Your task to perform on an android device: turn off picture-in-picture Image 0: 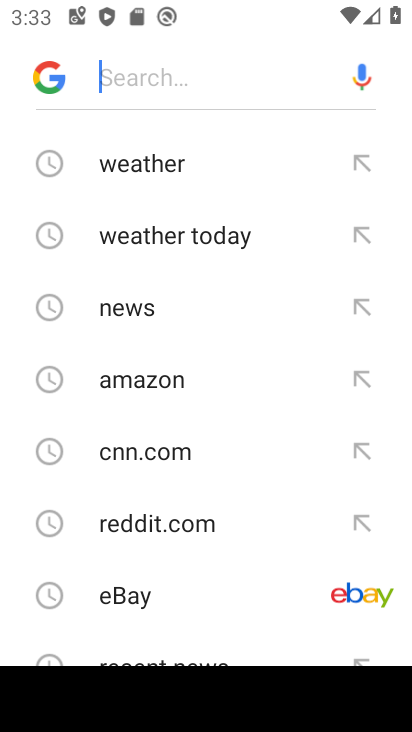
Step 0: press home button
Your task to perform on an android device: turn off picture-in-picture Image 1: 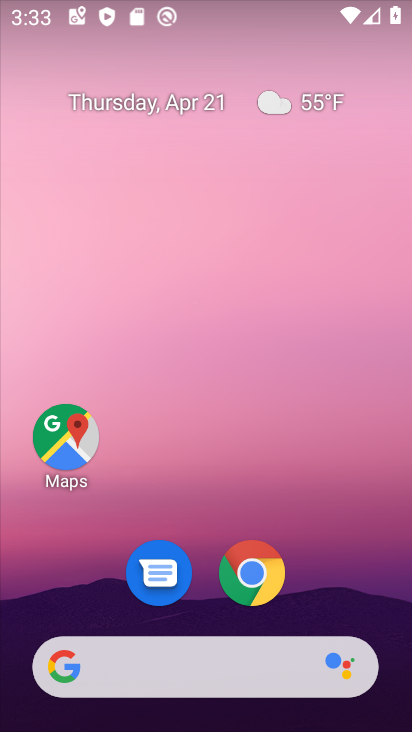
Step 1: drag from (346, 609) to (269, 182)
Your task to perform on an android device: turn off picture-in-picture Image 2: 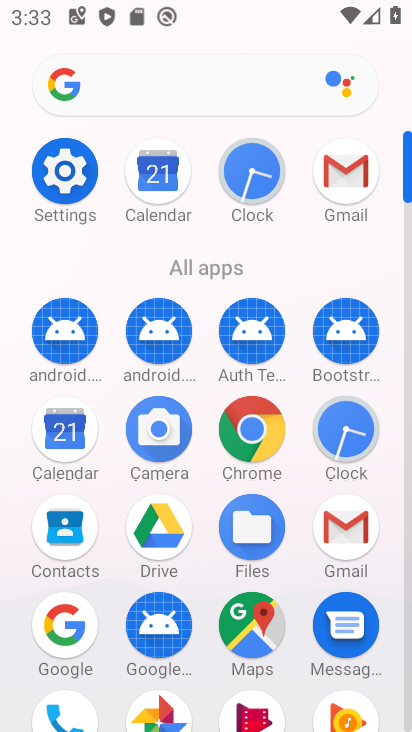
Step 2: click (407, 705)
Your task to perform on an android device: turn off picture-in-picture Image 3: 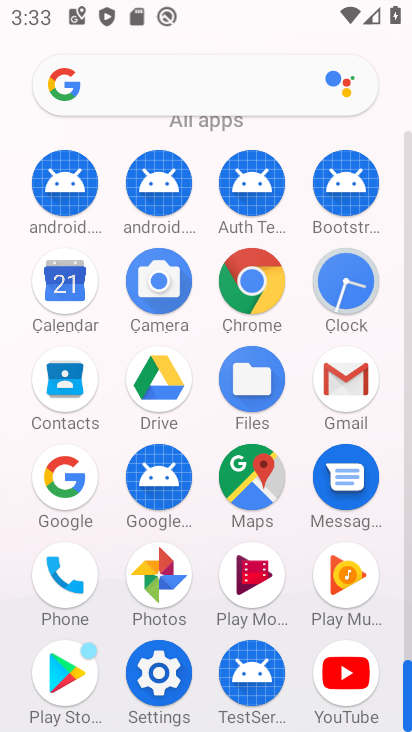
Step 3: click (154, 670)
Your task to perform on an android device: turn off picture-in-picture Image 4: 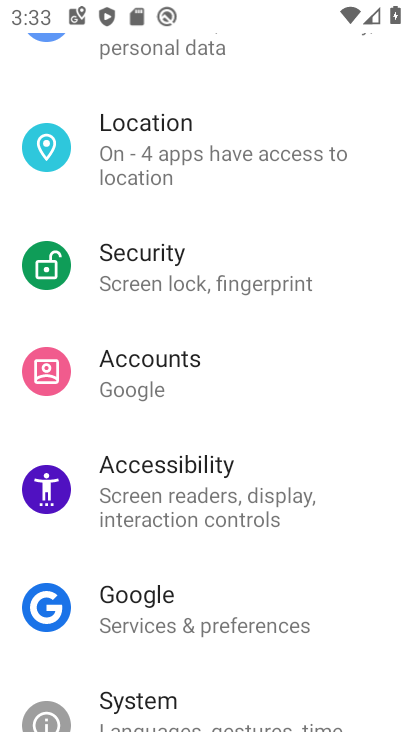
Step 4: drag from (365, 217) to (348, 449)
Your task to perform on an android device: turn off picture-in-picture Image 5: 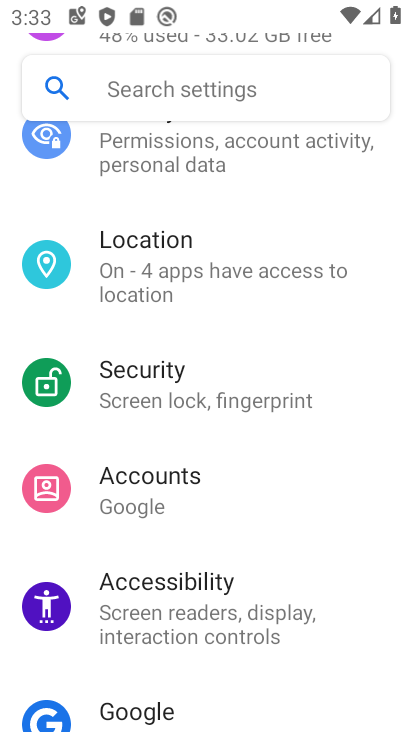
Step 5: drag from (370, 271) to (355, 465)
Your task to perform on an android device: turn off picture-in-picture Image 6: 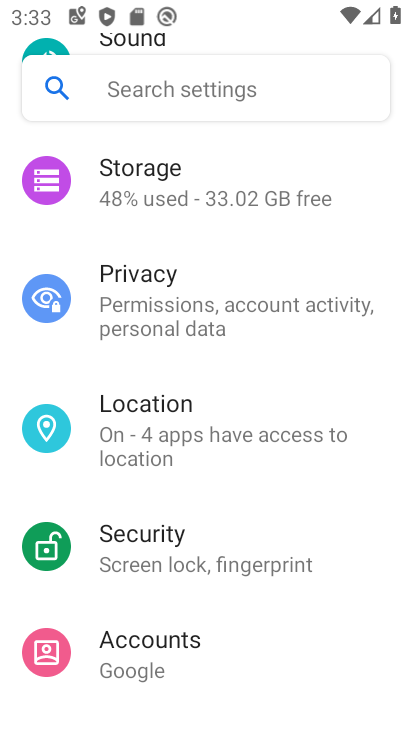
Step 6: drag from (366, 266) to (354, 438)
Your task to perform on an android device: turn off picture-in-picture Image 7: 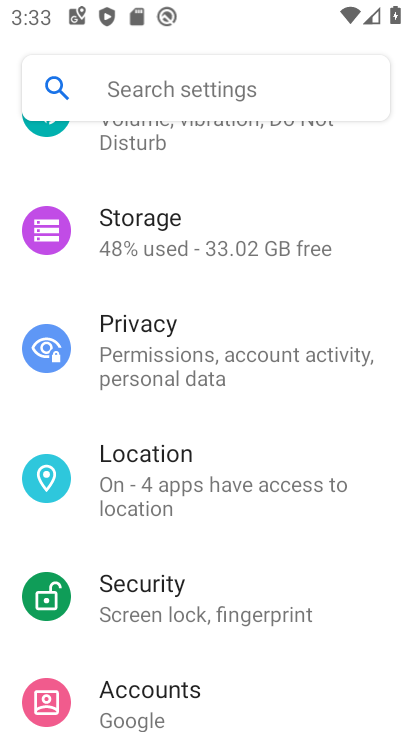
Step 7: drag from (362, 286) to (352, 478)
Your task to perform on an android device: turn off picture-in-picture Image 8: 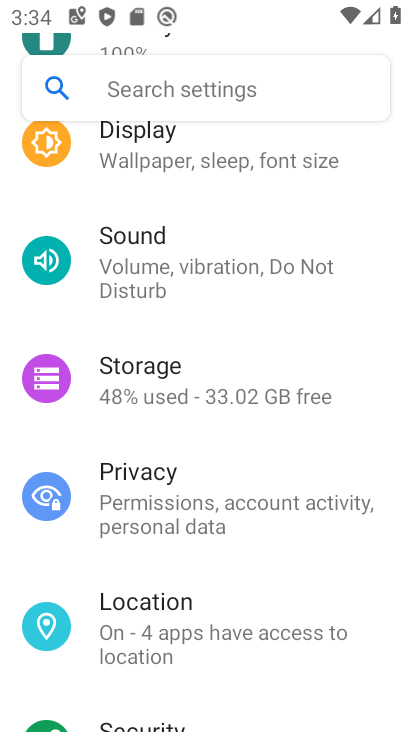
Step 8: drag from (347, 276) to (341, 511)
Your task to perform on an android device: turn off picture-in-picture Image 9: 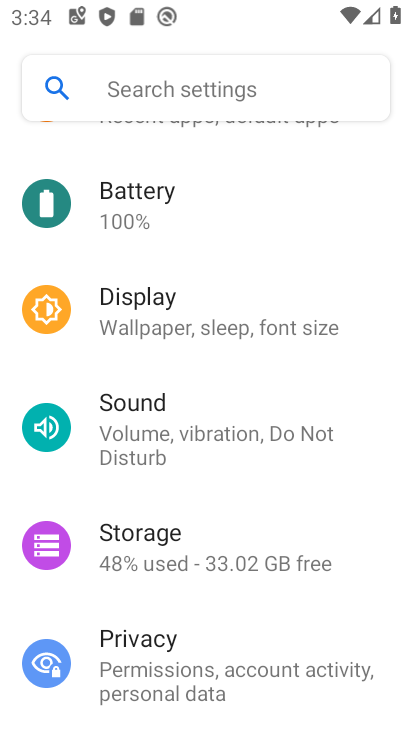
Step 9: drag from (345, 303) to (332, 539)
Your task to perform on an android device: turn off picture-in-picture Image 10: 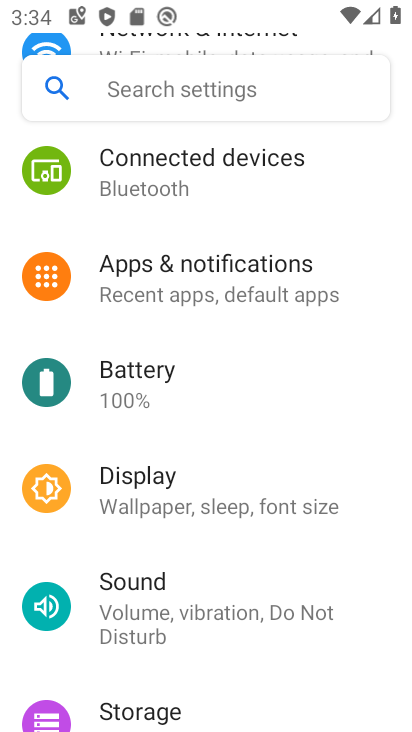
Step 10: click (164, 277)
Your task to perform on an android device: turn off picture-in-picture Image 11: 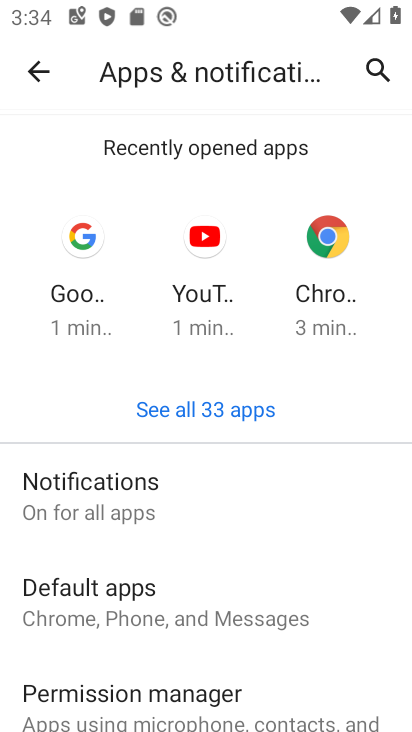
Step 11: drag from (195, 612) to (239, 288)
Your task to perform on an android device: turn off picture-in-picture Image 12: 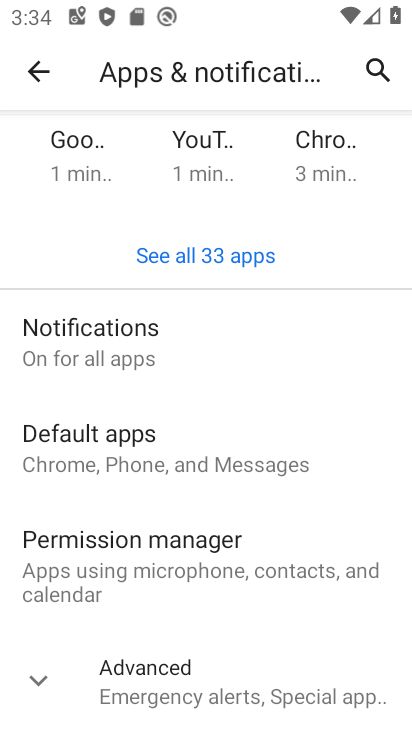
Step 12: click (47, 678)
Your task to perform on an android device: turn off picture-in-picture Image 13: 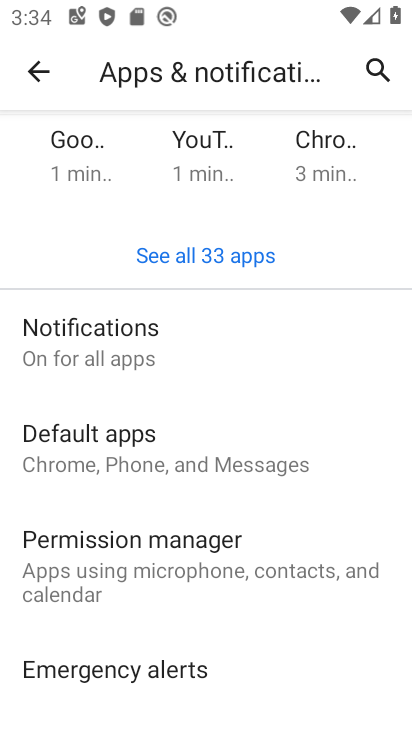
Step 13: drag from (289, 669) to (343, 336)
Your task to perform on an android device: turn off picture-in-picture Image 14: 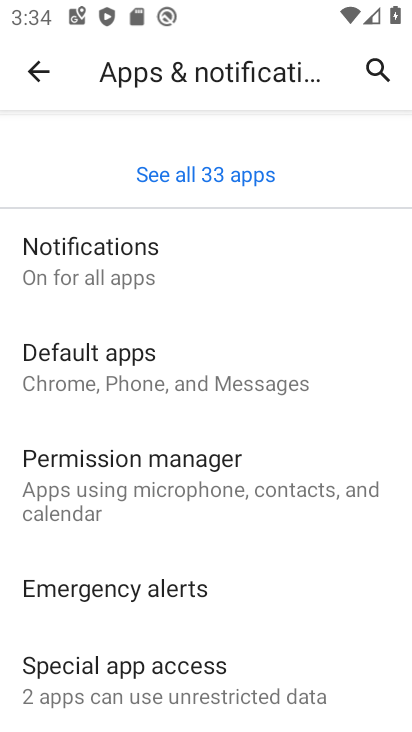
Step 14: click (82, 678)
Your task to perform on an android device: turn off picture-in-picture Image 15: 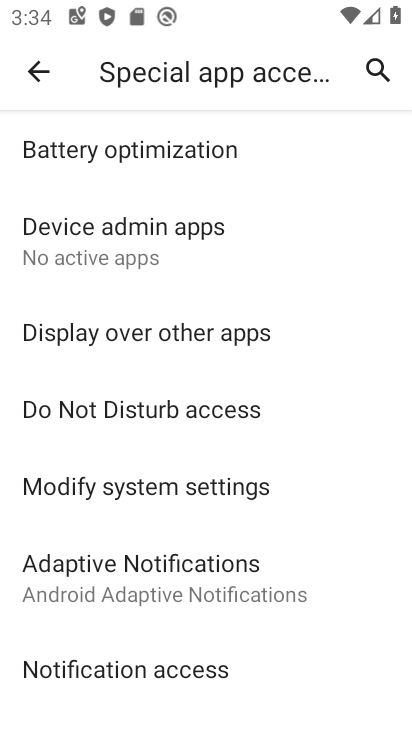
Step 15: drag from (337, 662) to (340, 272)
Your task to perform on an android device: turn off picture-in-picture Image 16: 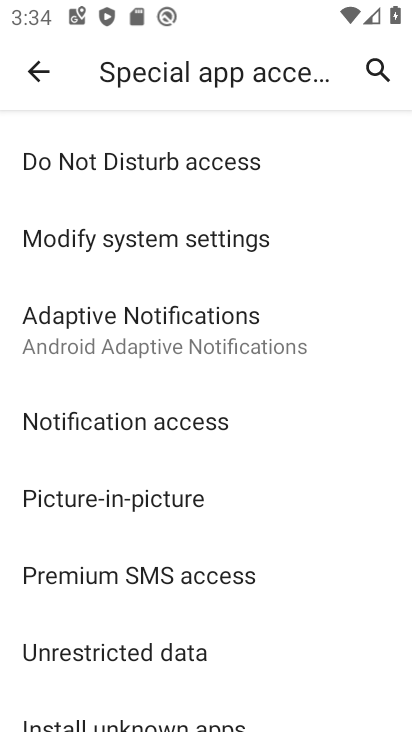
Step 16: click (71, 500)
Your task to perform on an android device: turn off picture-in-picture Image 17: 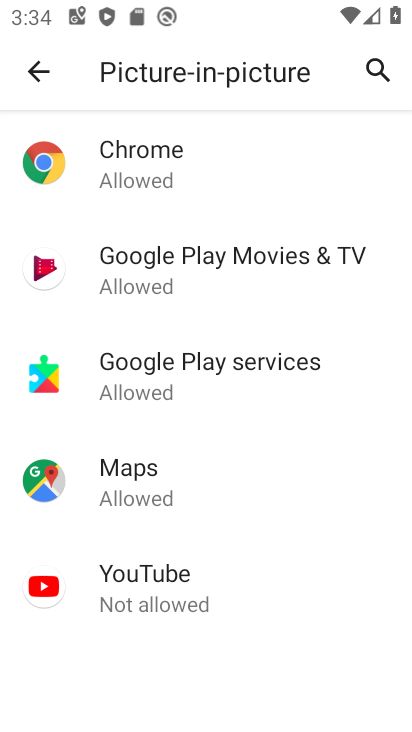
Step 17: click (130, 482)
Your task to perform on an android device: turn off picture-in-picture Image 18: 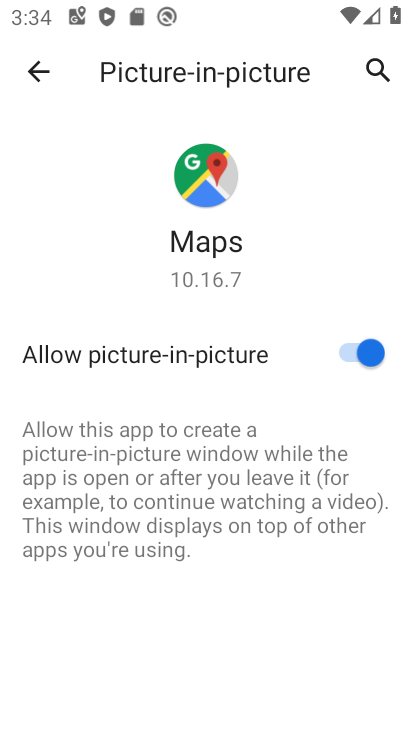
Step 18: click (343, 349)
Your task to perform on an android device: turn off picture-in-picture Image 19: 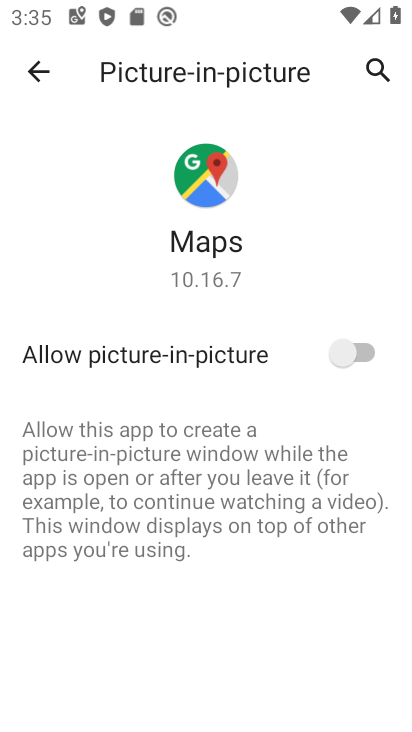
Step 19: task complete